Your task to perform on an android device: turn on notifications settings in the gmail app Image 0: 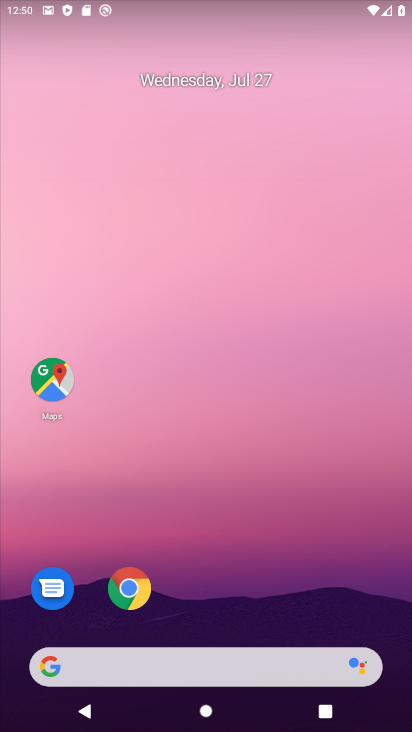
Step 0: drag from (244, 617) to (239, 143)
Your task to perform on an android device: turn on notifications settings in the gmail app Image 1: 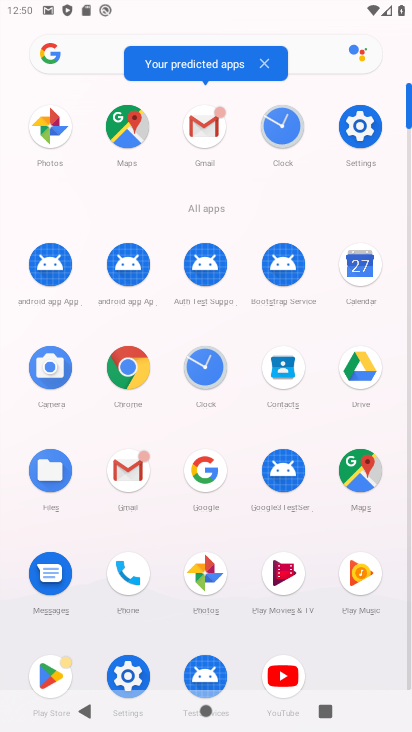
Step 1: click (205, 134)
Your task to perform on an android device: turn on notifications settings in the gmail app Image 2: 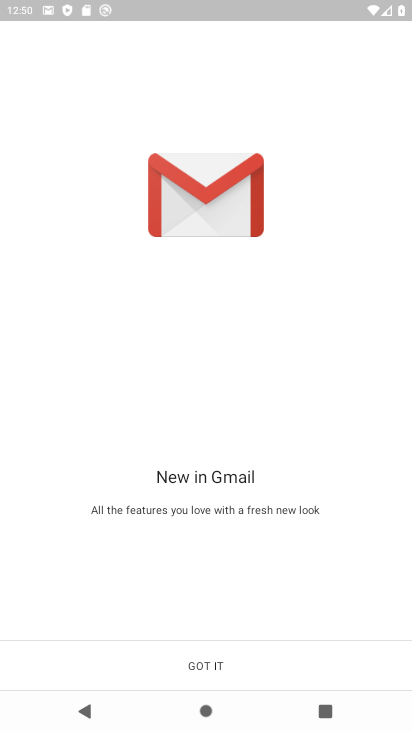
Step 2: click (227, 675)
Your task to perform on an android device: turn on notifications settings in the gmail app Image 3: 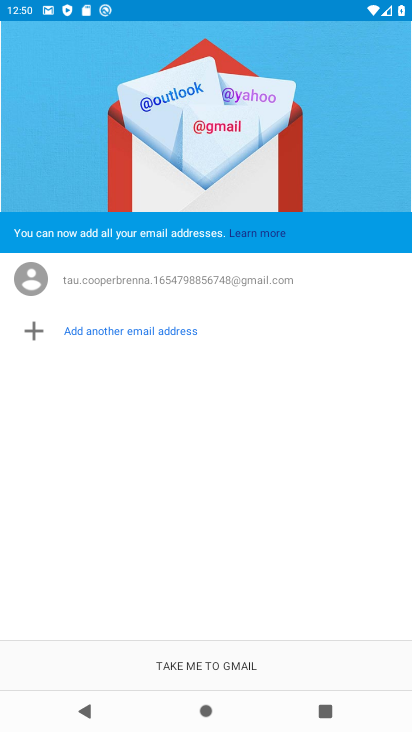
Step 3: click (227, 675)
Your task to perform on an android device: turn on notifications settings in the gmail app Image 4: 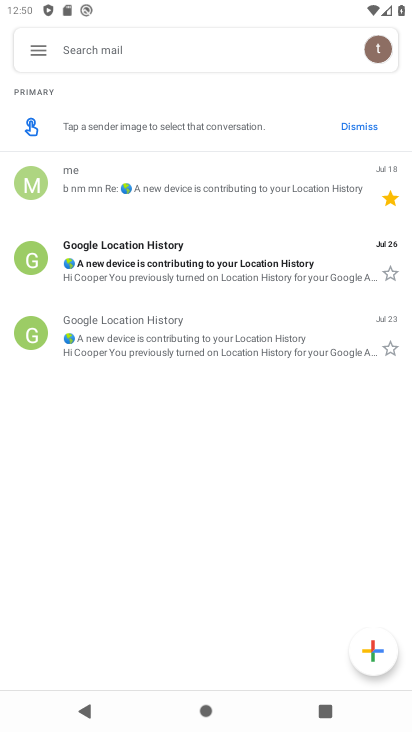
Step 4: click (32, 61)
Your task to perform on an android device: turn on notifications settings in the gmail app Image 5: 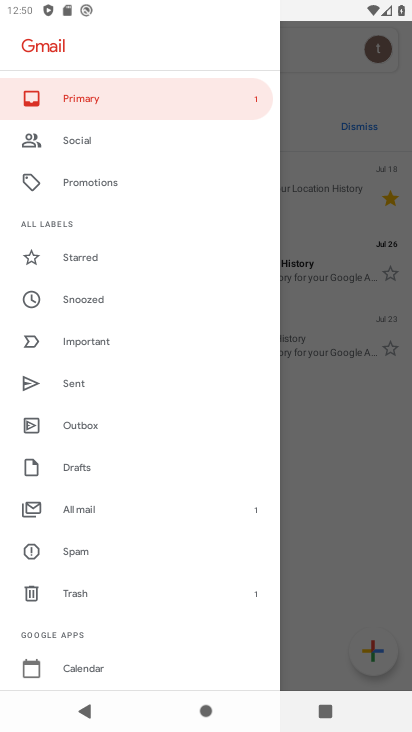
Step 5: drag from (140, 634) to (134, 337)
Your task to perform on an android device: turn on notifications settings in the gmail app Image 6: 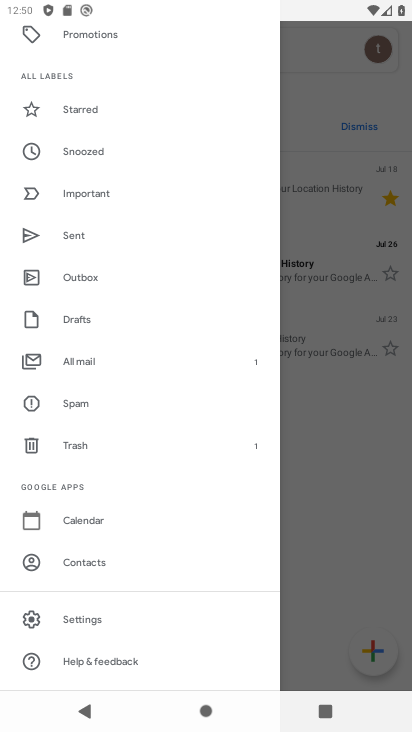
Step 6: click (147, 632)
Your task to perform on an android device: turn on notifications settings in the gmail app Image 7: 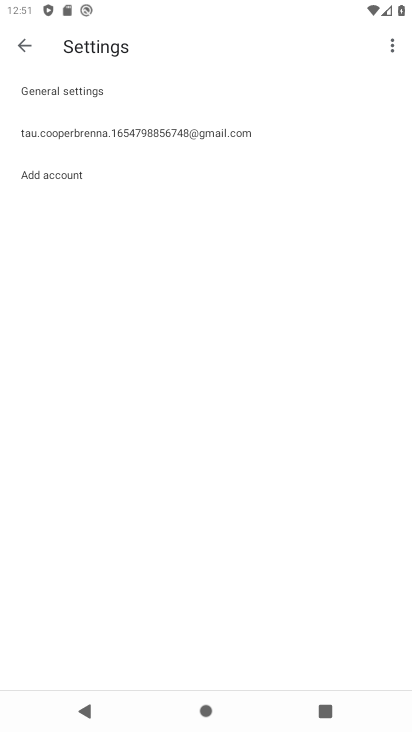
Step 7: click (166, 142)
Your task to perform on an android device: turn on notifications settings in the gmail app Image 8: 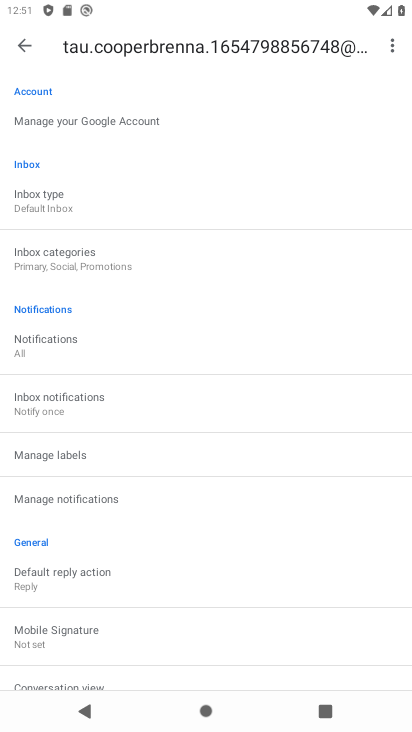
Step 8: click (108, 510)
Your task to perform on an android device: turn on notifications settings in the gmail app Image 9: 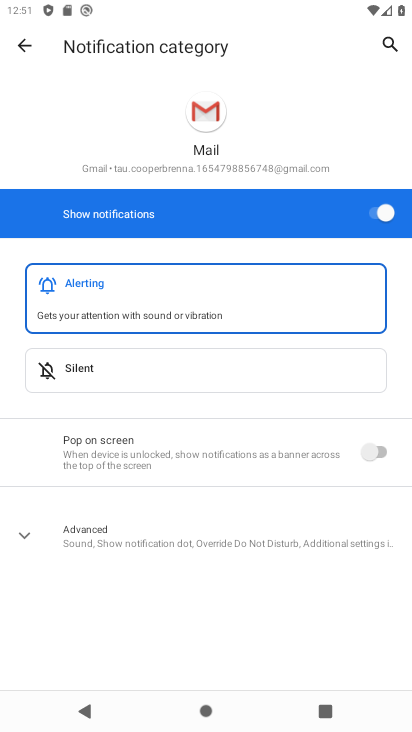
Step 9: click (369, 466)
Your task to perform on an android device: turn on notifications settings in the gmail app Image 10: 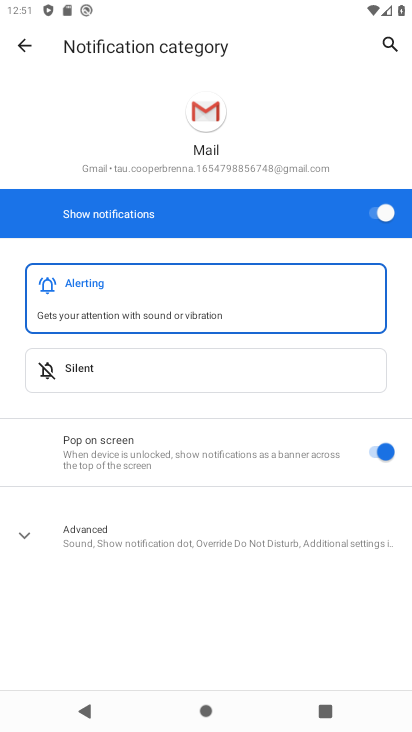
Step 10: task complete